Your task to perform on an android device: open chrome privacy settings Image 0: 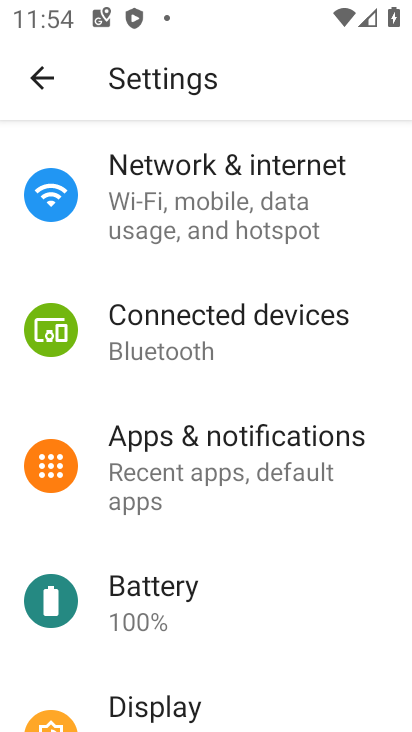
Step 0: drag from (207, 662) to (160, 16)
Your task to perform on an android device: open chrome privacy settings Image 1: 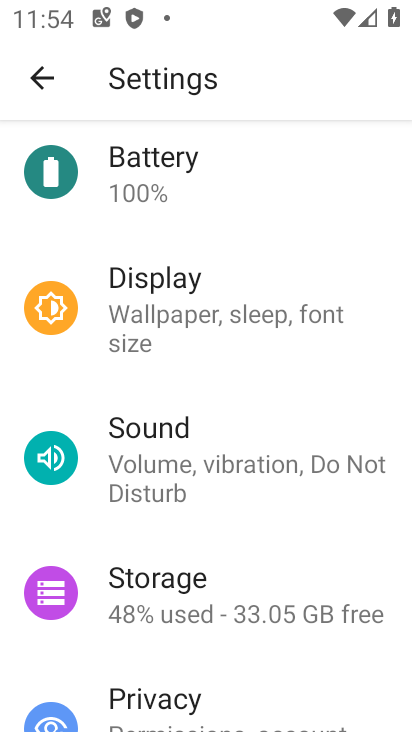
Step 1: click (179, 695)
Your task to perform on an android device: open chrome privacy settings Image 2: 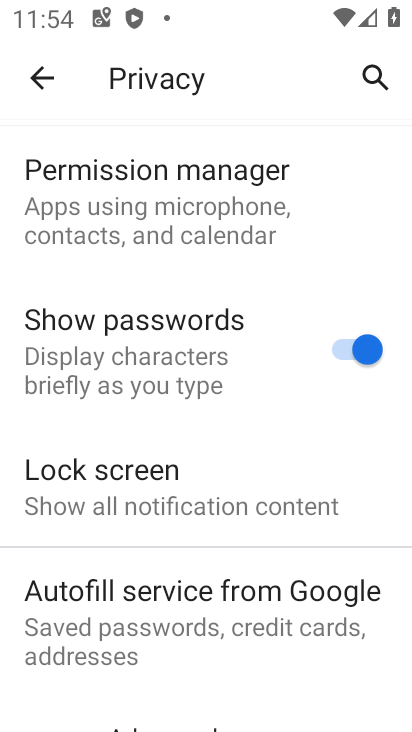
Step 2: task complete